Your task to perform on an android device: What's on my calendar today? Image 0: 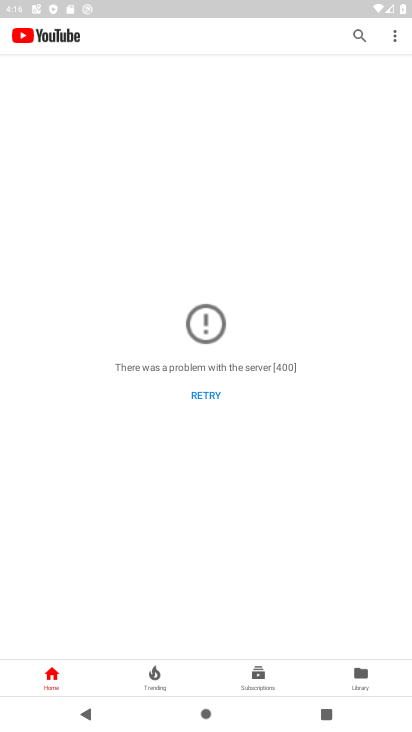
Step 0: press back button
Your task to perform on an android device: What's on my calendar today? Image 1: 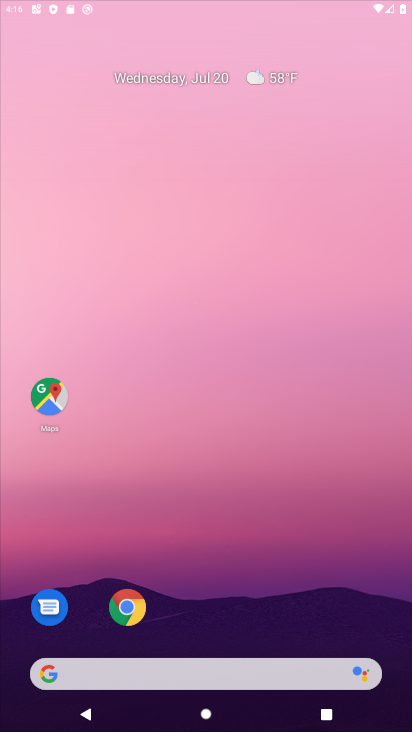
Step 1: press home button
Your task to perform on an android device: What's on my calendar today? Image 2: 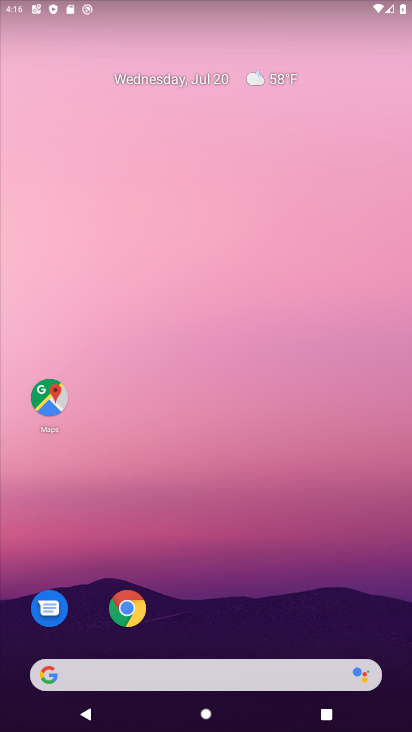
Step 2: click (233, 680)
Your task to perform on an android device: What's on my calendar today? Image 3: 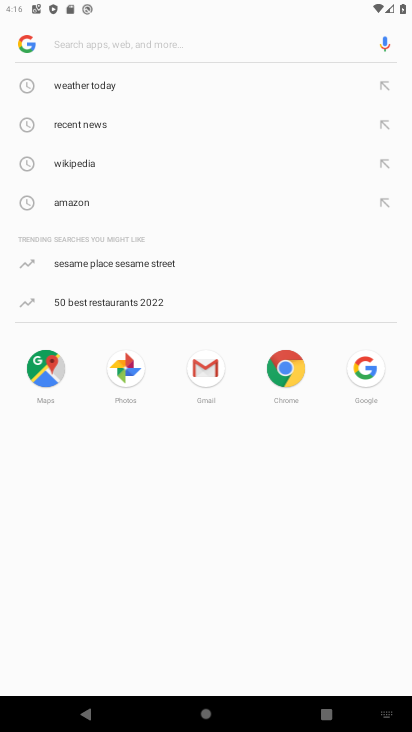
Step 3: press home button
Your task to perform on an android device: What's on my calendar today? Image 4: 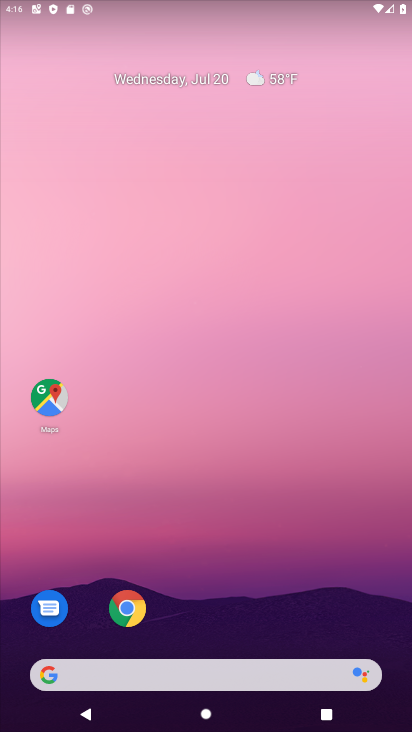
Step 4: drag from (216, 660) to (111, 57)
Your task to perform on an android device: What's on my calendar today? Image 5: 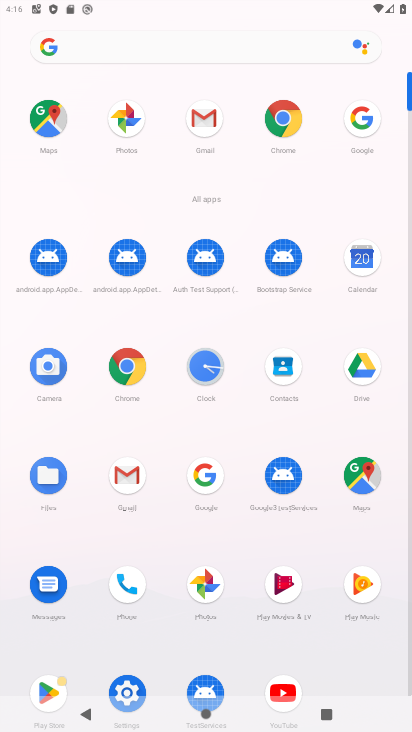
Step 5: click (367, 242)
Your task to perform on an android device: What's on my calendar today? Image 6: 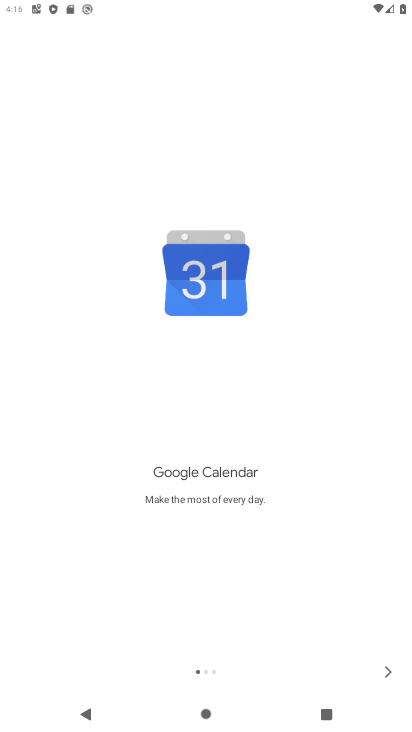
Step 6: click (393, 670)
Your task to perform on an android device: What's on my calendar today? Image 7: 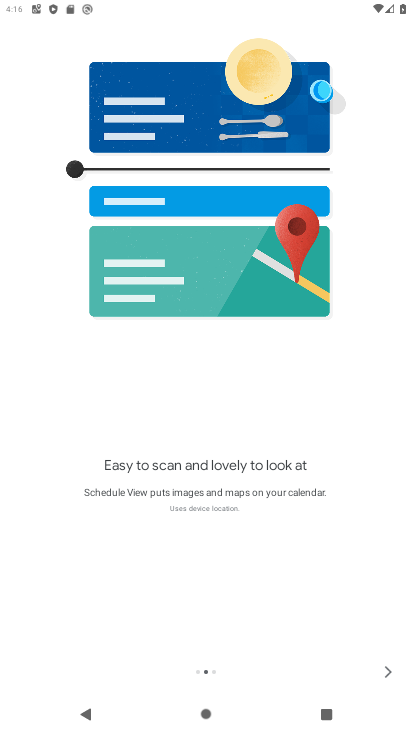
Step 7: click (395, 678)
Your task to perform on an android device: What's on my calendar today? Image 8: 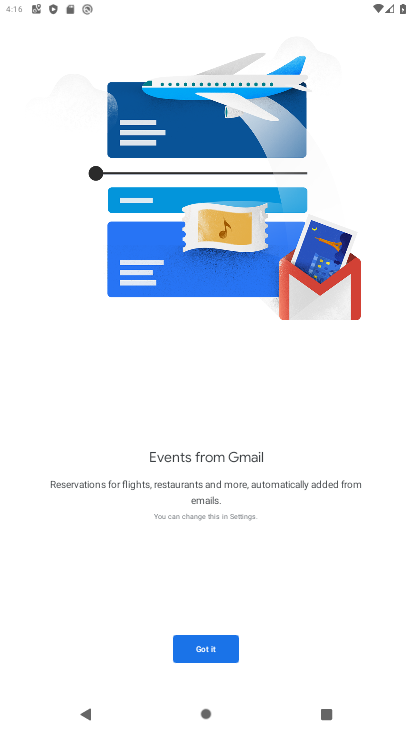
Step 8: click (213, 635)
Your task to perform on an android device: What's on my calendar today? Image 9: 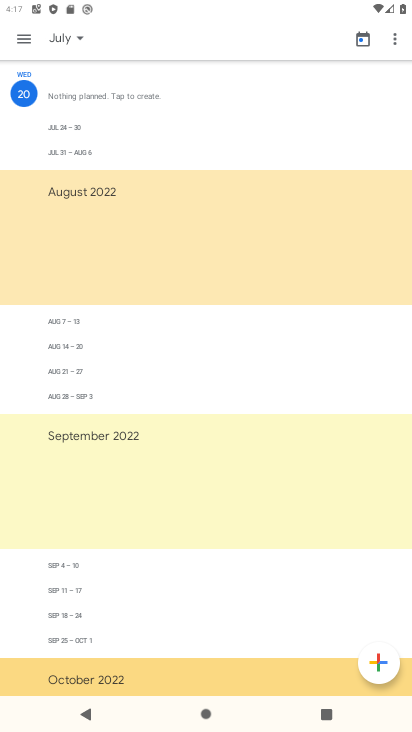
Step 9: task complete